Your task to perform on an android device: clear all cookies in the chrome app Image 0: 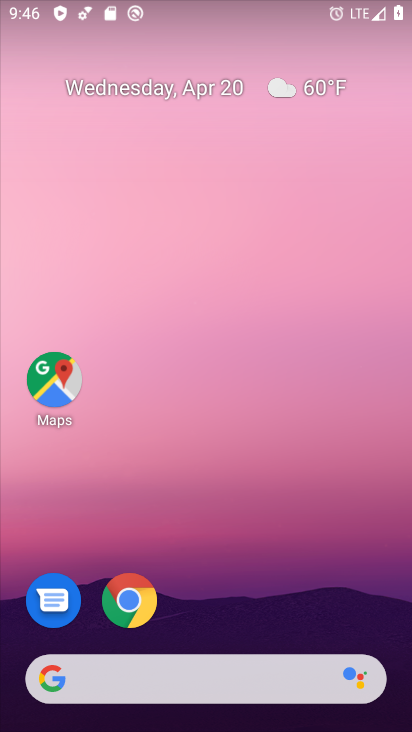
Step 0: click (142, 596)
Your task to perform on an android device: clear all cookies in the chrome app Image 1: 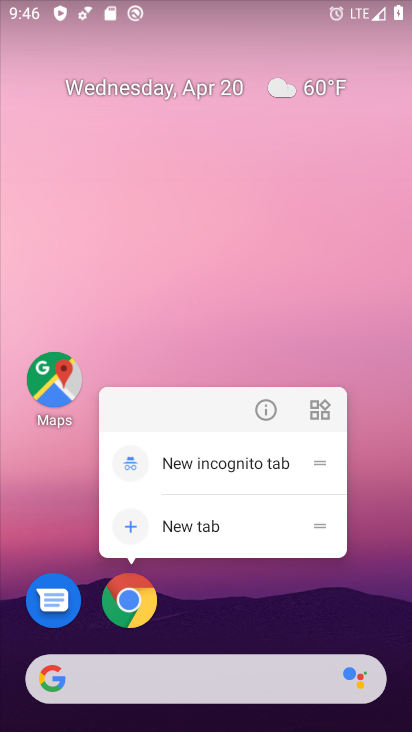
Step 1: click (129, 596)
Your task to perform on an android device: clear all cookies in the chrome app Image 2: 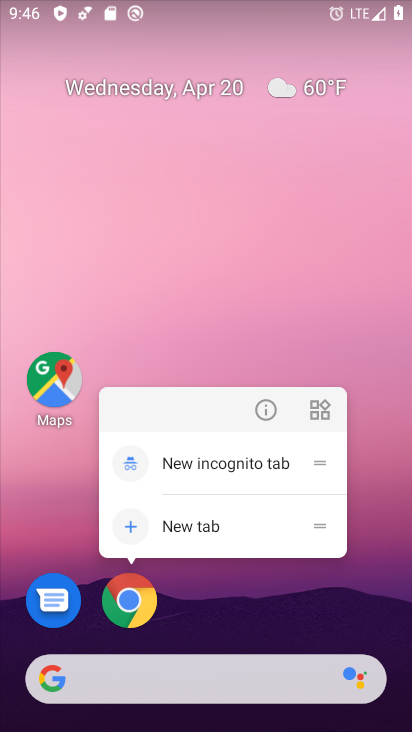
Step 2: click (126, 595)
Your task to perform on an android device: clear all cookies in the chrome app Image 3: 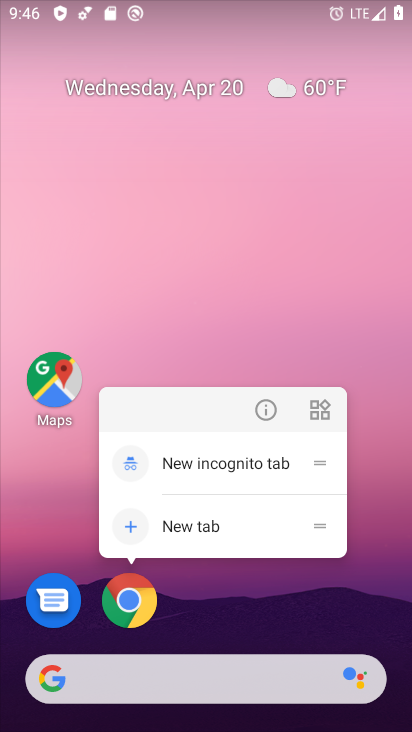
Step 3: click (122, 611)
Your task to perform on an android device: clear all cookies in the chrome app Image 4: 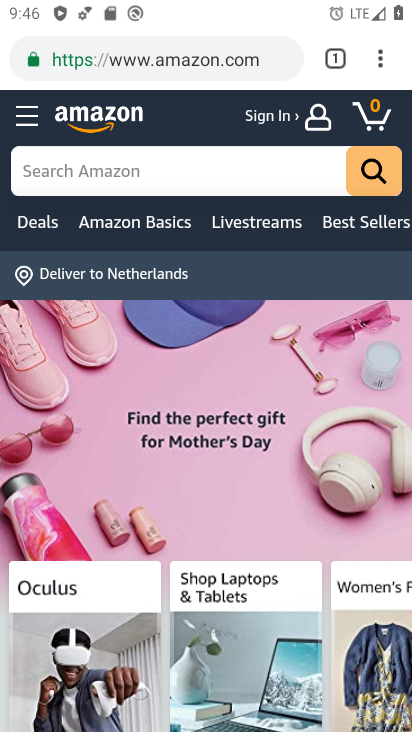
Step 4: click (372, 57)
Your task to perform on an android device: clear all cookies in the chrome app Image 5: 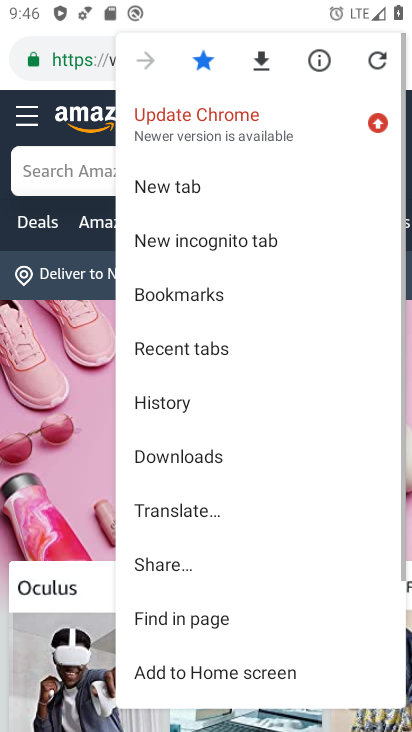
Step 5: drag from (371, 56) to (164, 246)
Your task to perform on an android device: clear all cookies in the chrome app Image 6: 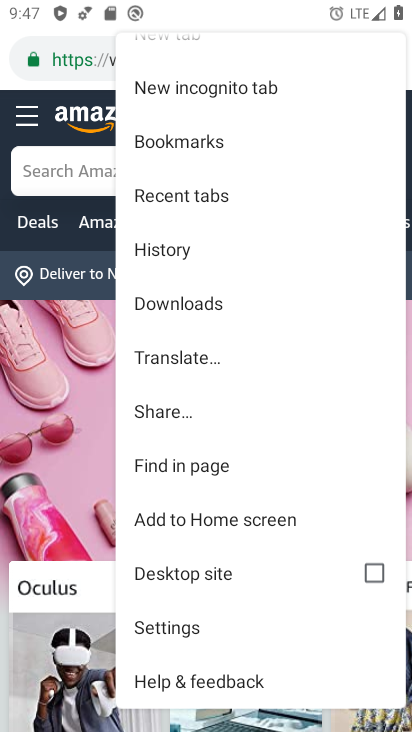
Step 6: click (164, 246)
Your task to perform on an android device: clear all cookies in the chrome app Image 7: 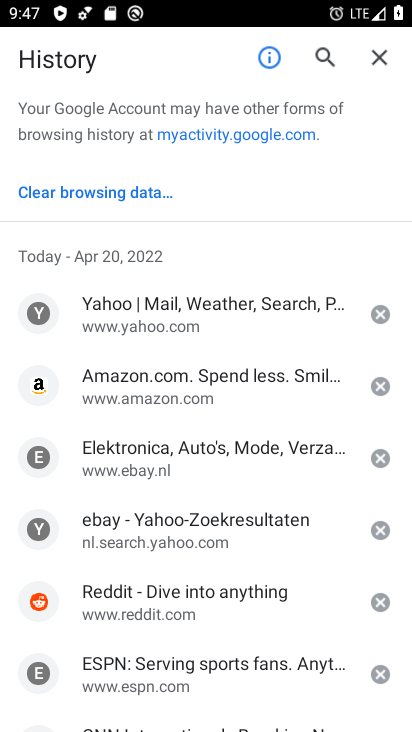
Step 7: click (99, 191)
Your task to perform on an android device: clear all cookies in the chrome app Image 8: 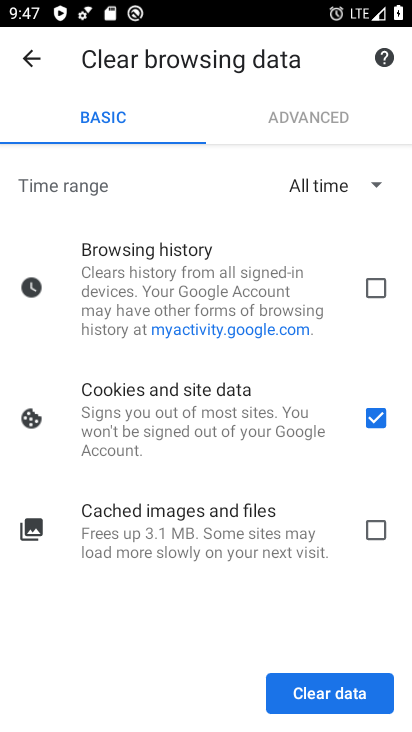
Step 8: click (351, 701)
Your task to perform on an android device: clear all cookies in the chrome app Image 9: 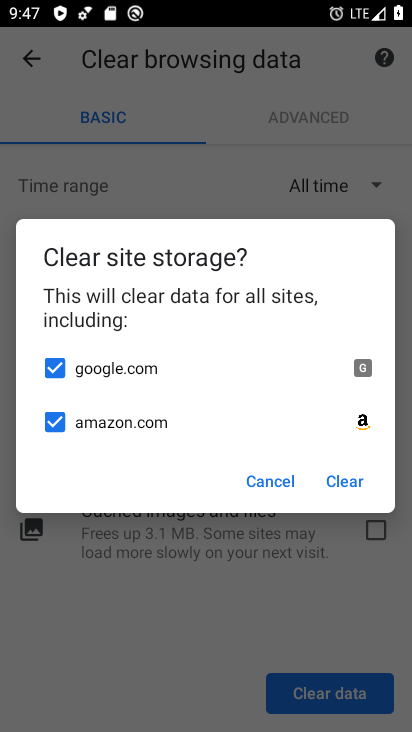
Step 9: click (330, 478)
Your task to perform on an android device: clear all cookies in the chrome app Image 10: 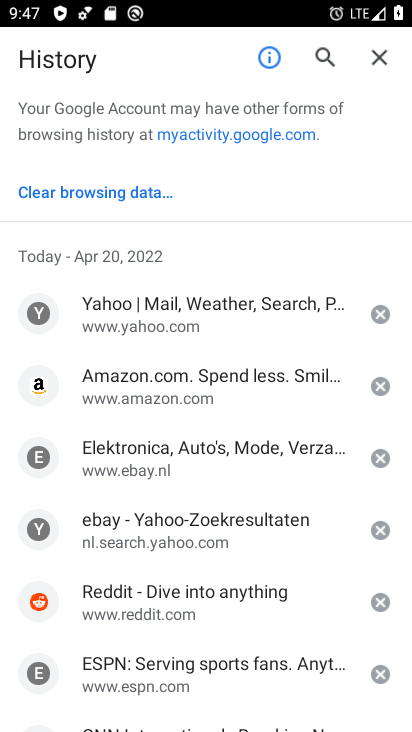
Step 10: task complete